Your task to perform on an android device: Do I have any events this weekend? Image 0: 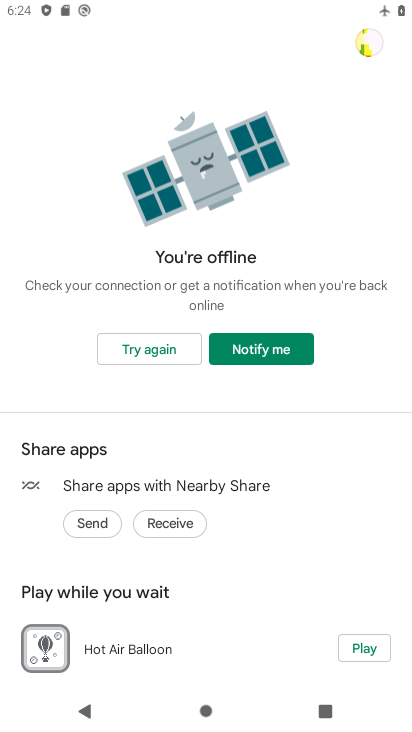
Step 0: press home button
Your task to perform on an android device: Do I have any events this weekend? Image 1: 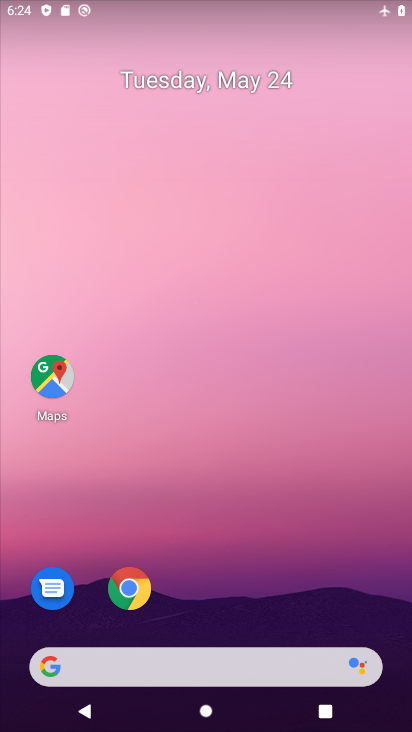
Step 1: drag from (277, 651) to (312, 181)
Your task to perform on an android device: Do I have any events this weekend? Image 2: 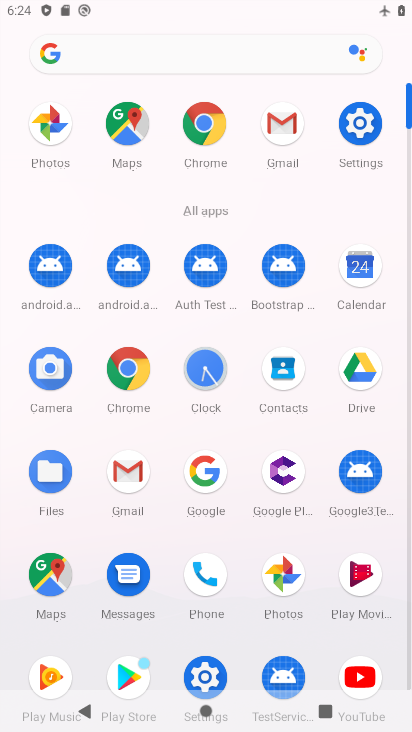
Step 2: click (333, 251)
Your task to perform on an android device: Do I have any events this weekend? Image 3: 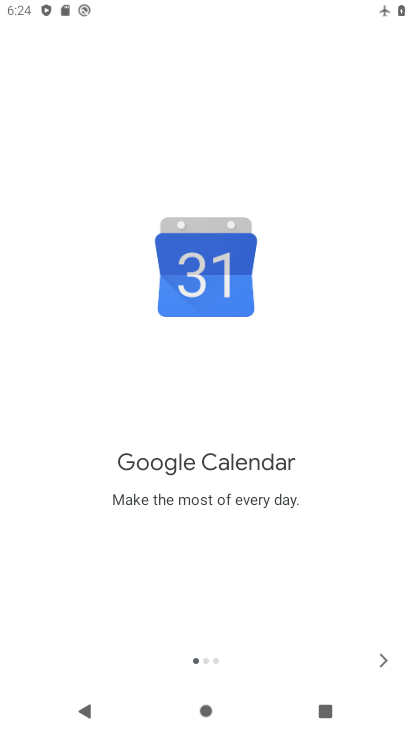
Step 3: click (384, 652)
Your task to perform on an android device: Do I have any events this weekend? Image 4: 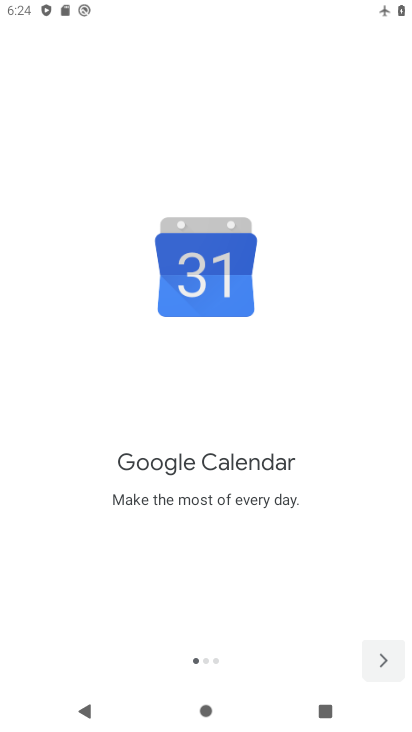
Step 4: click (384, 652)
Your task to perform on an android device: Do I have any events this weekend? Image 5: 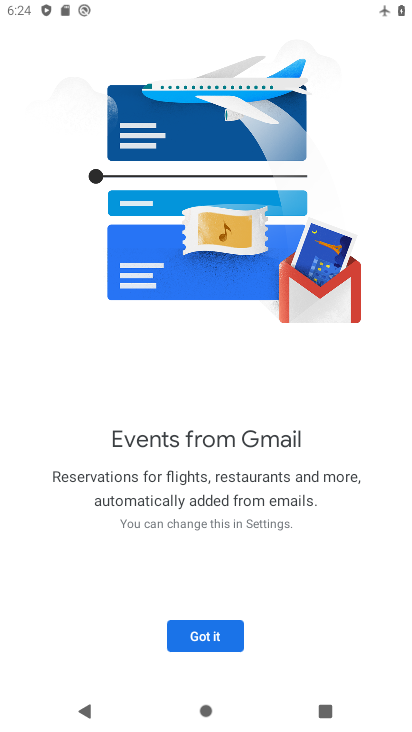
Step 5: click (384, 652)
Your task to perform on an android device: Do I have any events this weekend? Image 6: 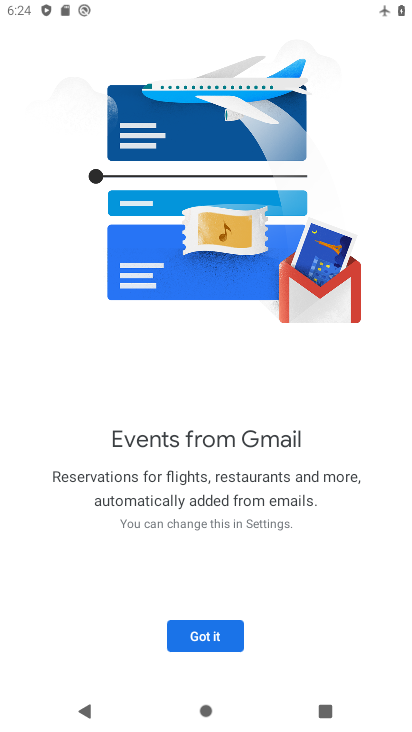
Step 6: click (189, 633)
Your task to perform on an android device: Do I have any events this weekend? Image 7: 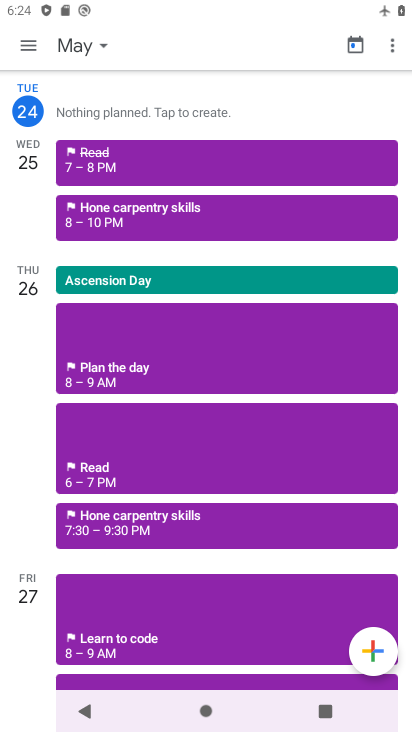
Step 7: click (96, 43)
Your task to perform on an android device: Do I have any events this weekend? Image 8: 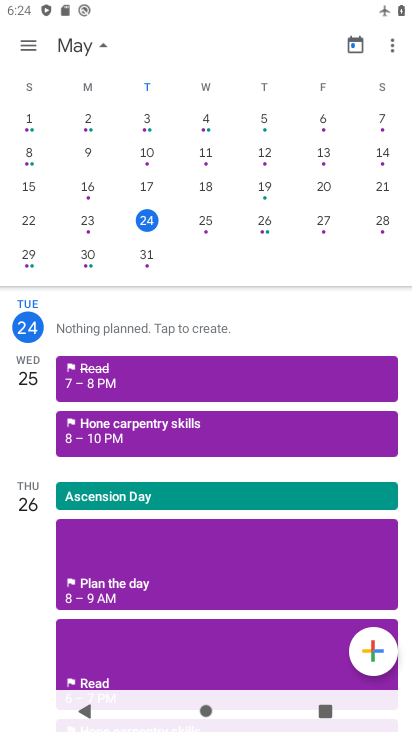
Step 8: click (378, 222)
Your task to perform on an android device: Do I have any events this weekend? Image 9: 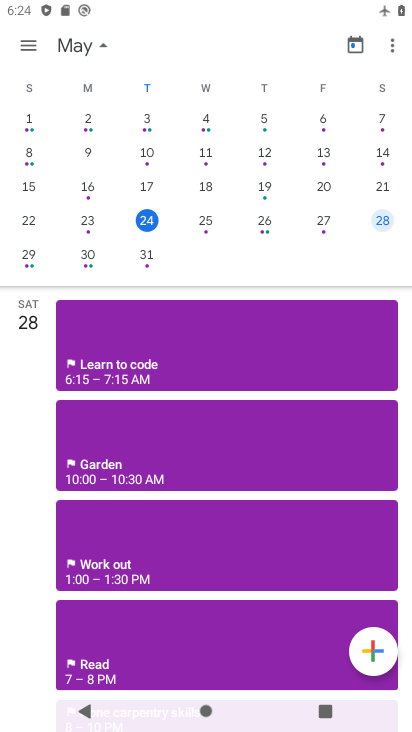
Step 9: task complete